Your task to perform on an android device: open a bookmark in the chrome app Image 0: 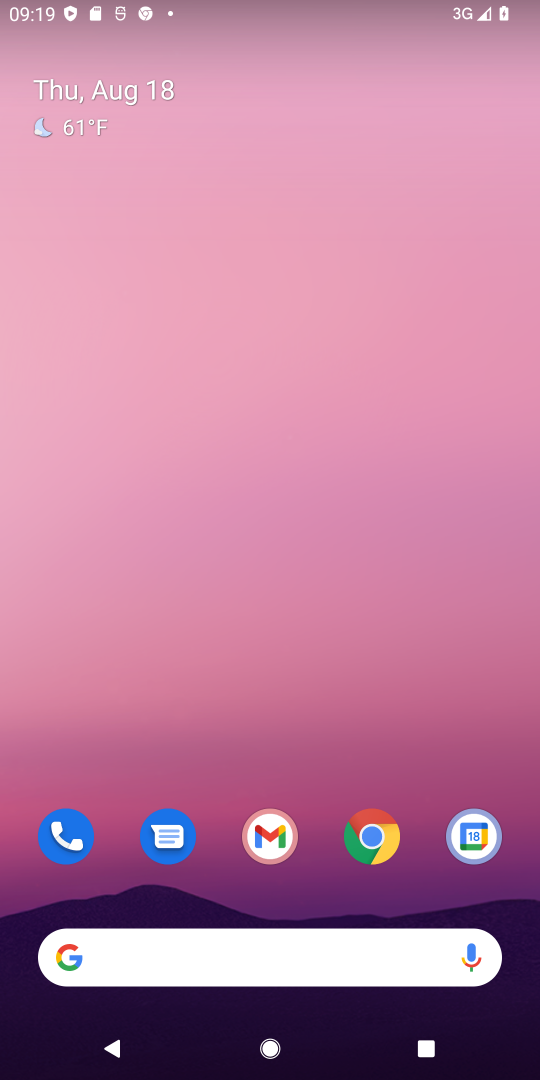
Step 0: drag from (414, 781) to (436, 96)
Your task to perform on an android device: open a bookmark in the chrome app Image 1: 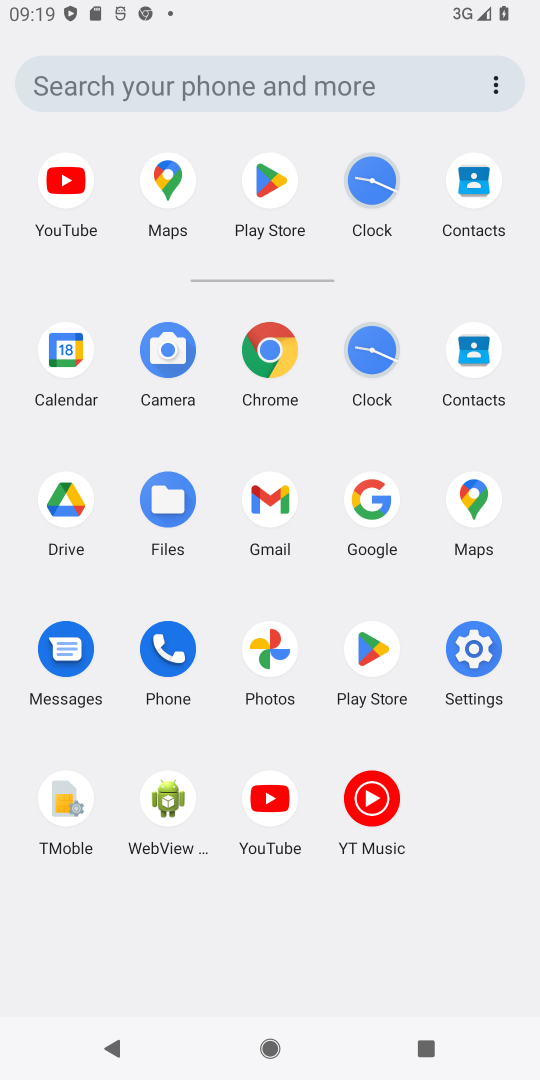
Step 1: click (265, 349)
Your task to perform on an android device: open a bookmark in the chrome app Image 2: 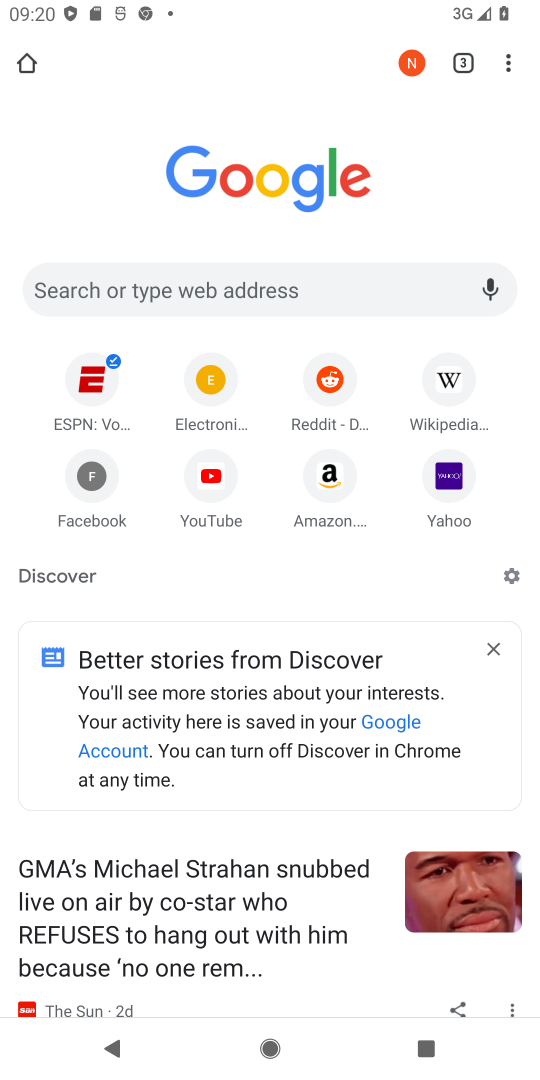
Step 2: drag from (521, 46) to (342, 426)
Your task to perform on an android device: open a bookmark in the chrome app Image 3: 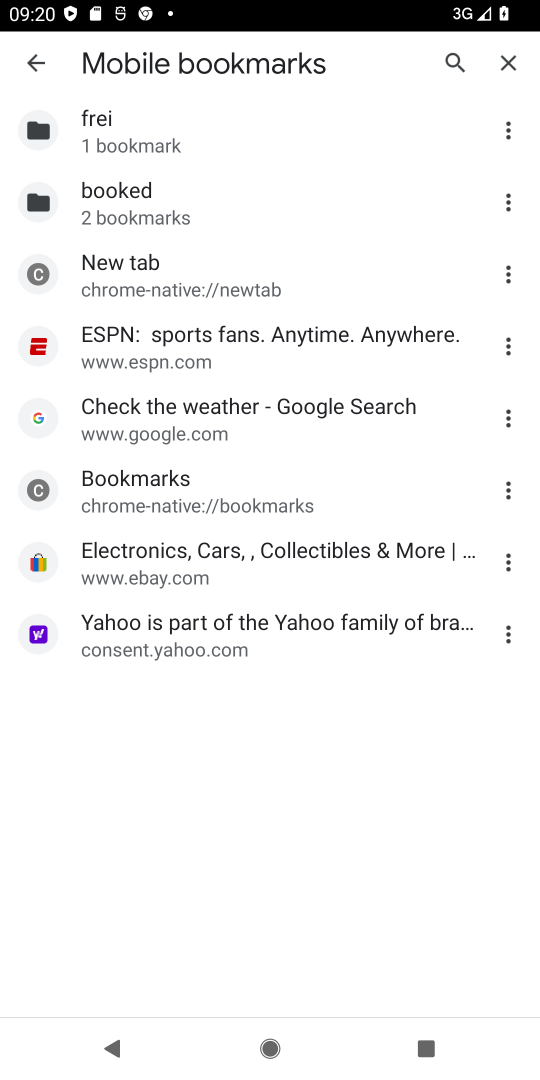
Step 3: click (150, 347)
Your task to perform on an android device: open a bookmark in the chrome app Image 4: 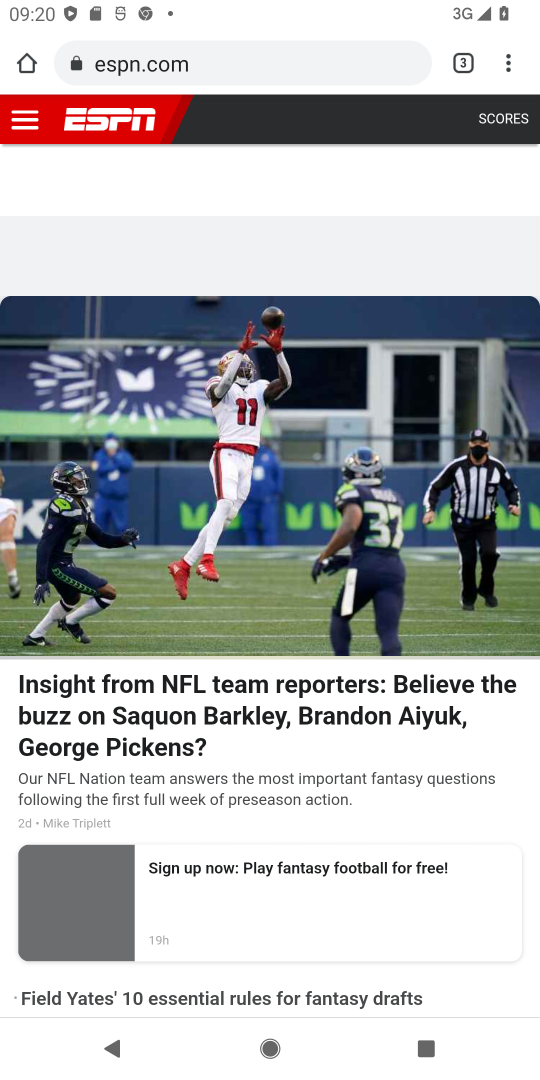
Step 4: task complete